Your task to perform on an android device: When is my next meeting? Image 0: 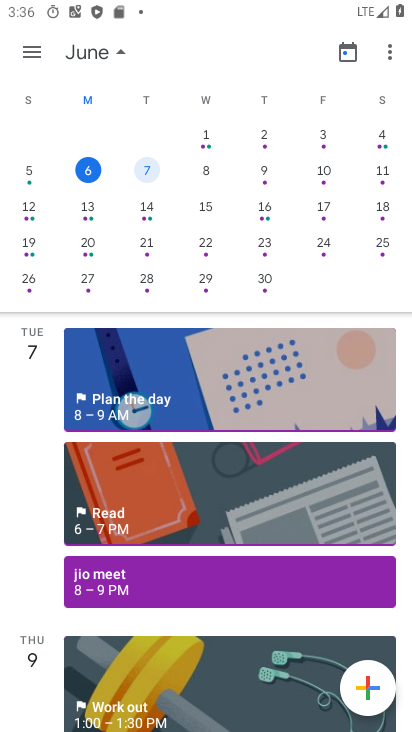
Step 0: press home button
Your task to perform on an android device: When is my next meeting? Image 1: 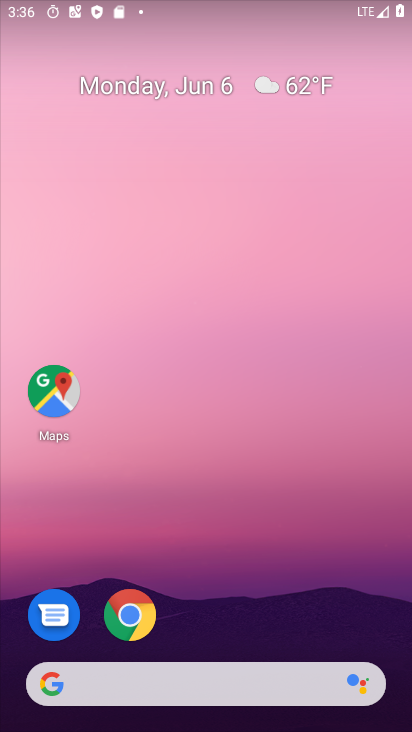
Step 1: drag from (266, 673) to (351, 23)
Your task to perform on an android device: When is my next meeting? Image 2: 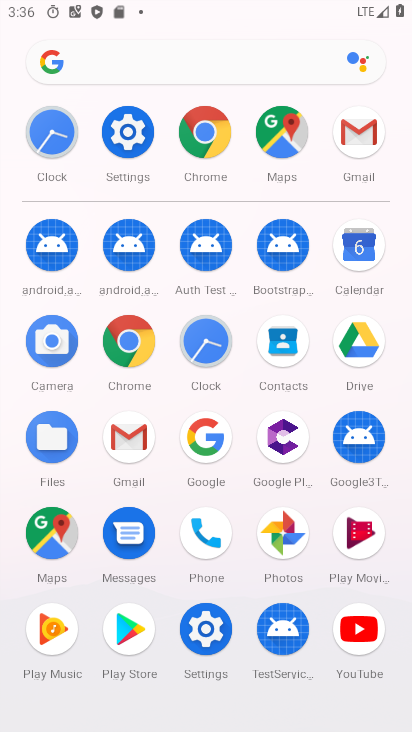
Step 2: click (354, 266)
Your task to perform on an android device: When is my next meeting? Image 3: 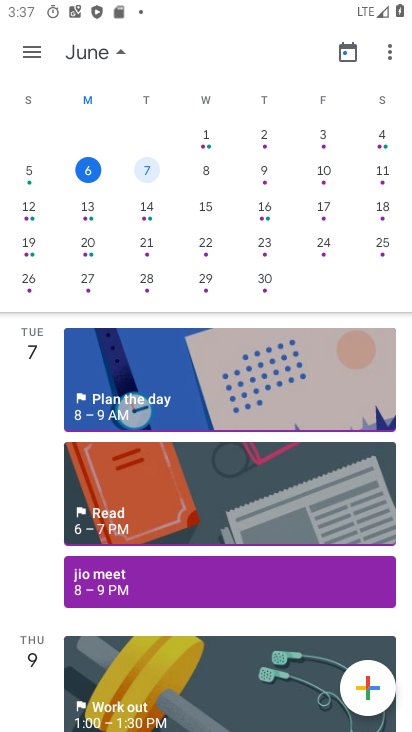
Step 3: click (143, 171)
Your task to perform on an android device: When is my next meeting? Image 4: 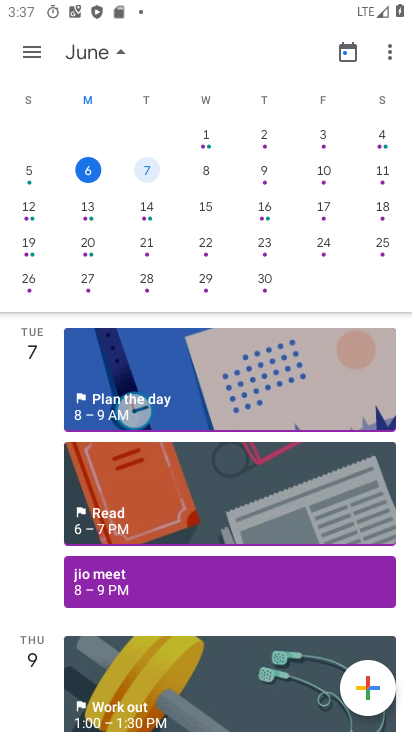
Step 4: task complete